Your task to perform on an android device: open a bookmark in the chrome app Image 0: 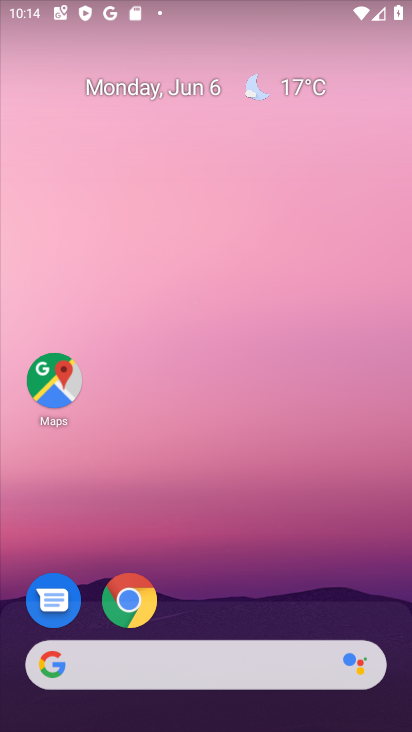
Step 0: click (144, 609)
Your task to perform on an android device: open a bookmark in the chrome app Image 1: 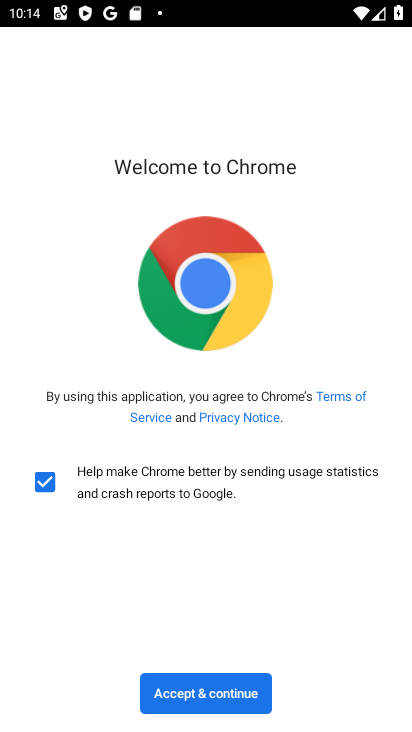
Step 1: click (225, 703)
Your task to perform on an android device: open a bookmark in the chrome app Image 2: 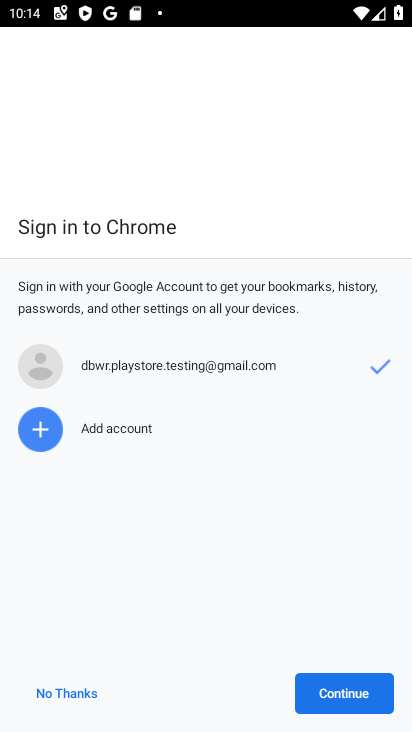
Step 2: click (355, 705)
Your task to perform on an android device: open a bookmark in the chrome app Image 3: 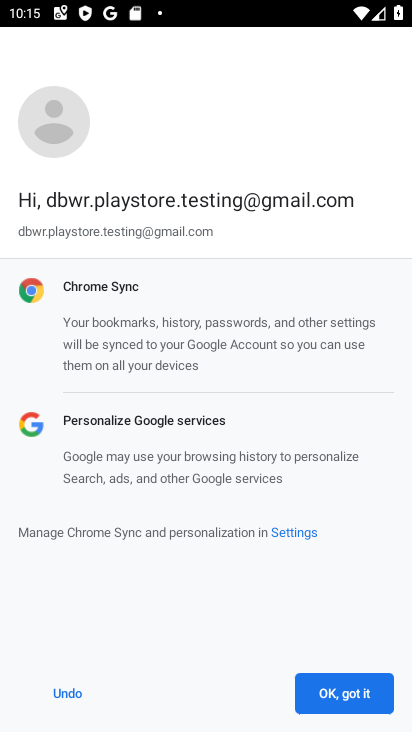
Step 3: click (355, 705)
Your task to perform on an android device: open a bookmark in the chrome app Image 4: 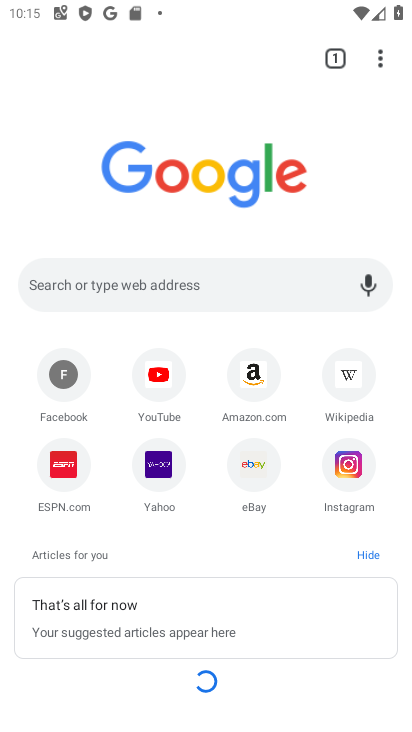
Step 4: click (386, 71)
Your task to perform on an android device: open a bookmark in the chrome app Image 5: 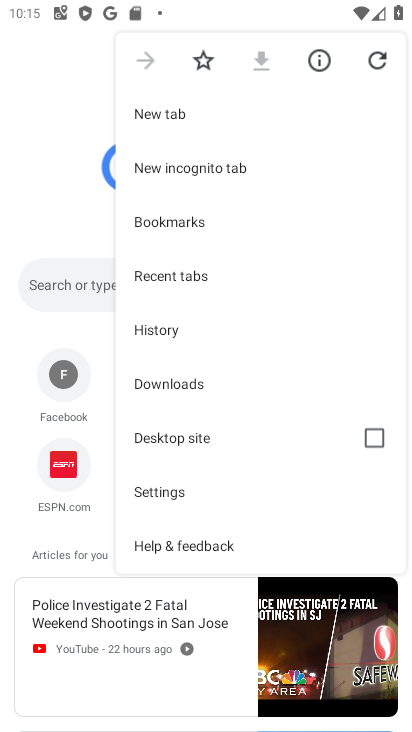
Step 5: click (228, 219)
Your task to perform on an android device: open a bookmark in the chrome app Image 6: 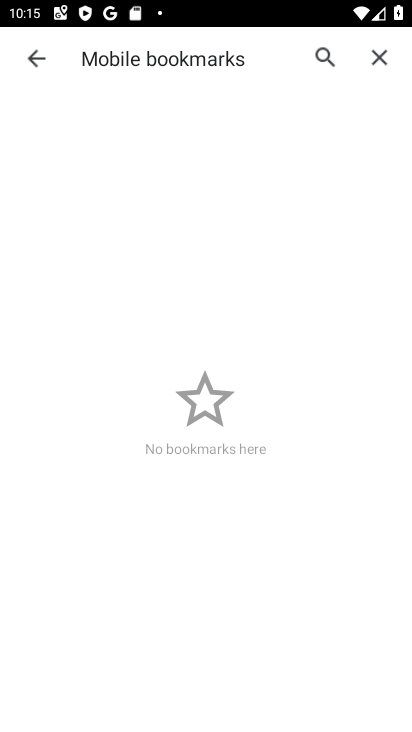
Step 6: task complete